Your task to perform on an android device: turn off translation in the chrome app Image 0: 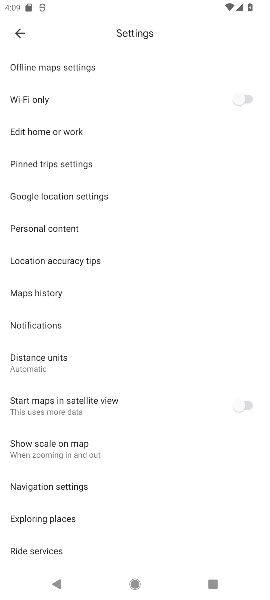
Step 0: press home button
Your task to perform on an android device: turn off translation in the chrome app Image 1: 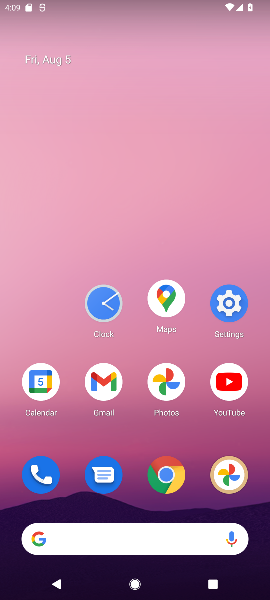
Step 1: click (176, 468)
Your task to perform on an android device: turn off translation in the chrome app Image 2: 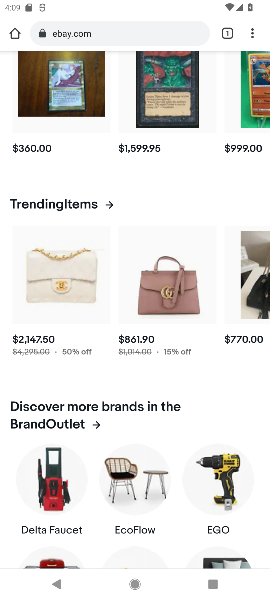
Step 2: click (253, 36)
Your task to perform on an android device: turn off translation in the chrome app Image 3: 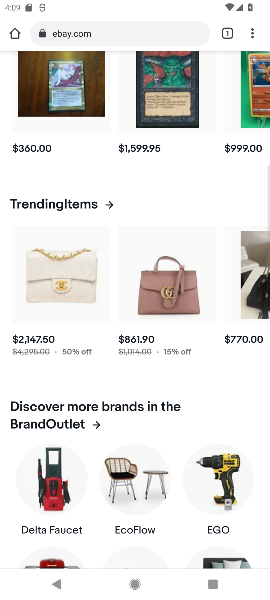
Step 3: click (254, 36)
Your task to perform on an android device: turn off translation in the chrome app Image 4: 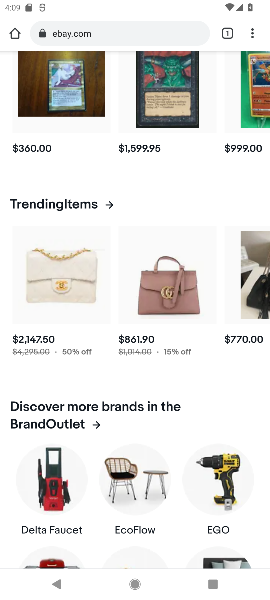
Step 4: click (254, 36)
Your task to perform on an android device: turn off translation in the chrome app Image 5: 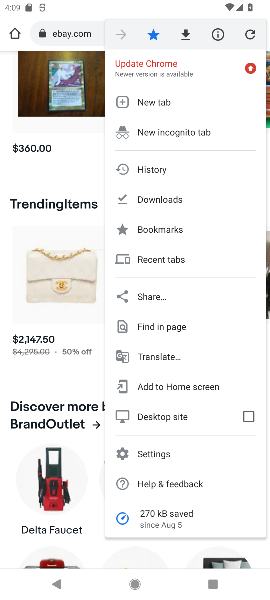
Step 5: click (164, 454)
Your task to perform on an android device: turn off translation in the chrome app Image 6: 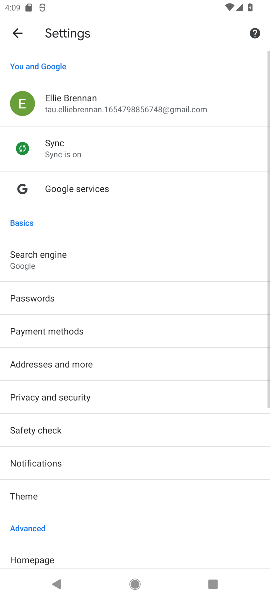
Step 6: drag from (130, 520) to (146, 260)
Your task to perform on an android device: turn off translation in the chrome app Image 7: 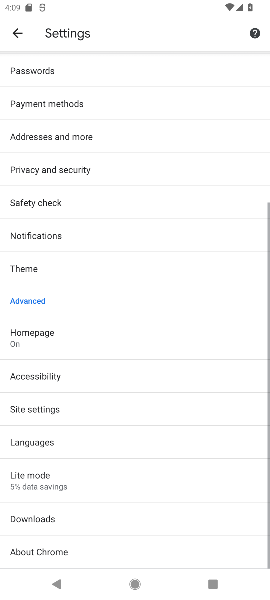
Step 7: click (77, 440)
Your task to perform on an android device: turn off translation in the chrome app Image 8: 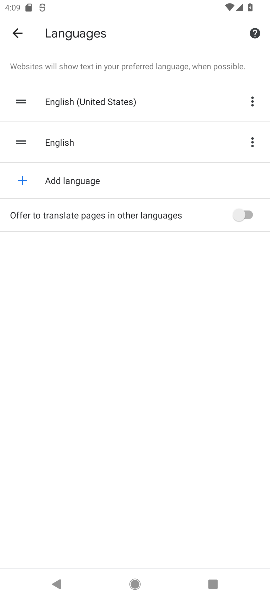
Step 8: task complete